Your task to perform on an android device: Open Amazon Image 0: 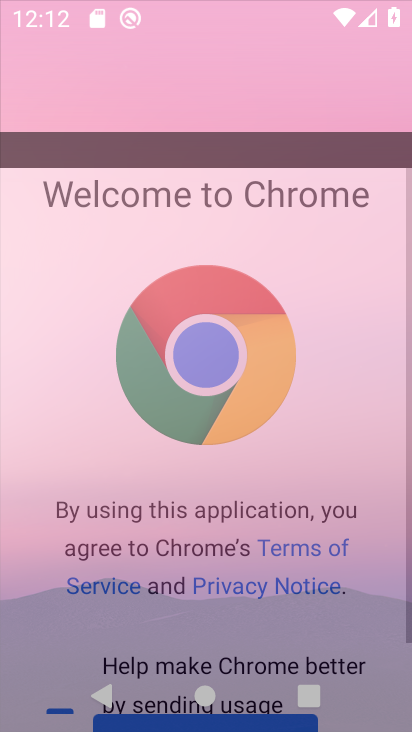
Step 0: drag from (361, 335) to (376, 157)
Your task to perform on an android device: Open Amazon Image 1: 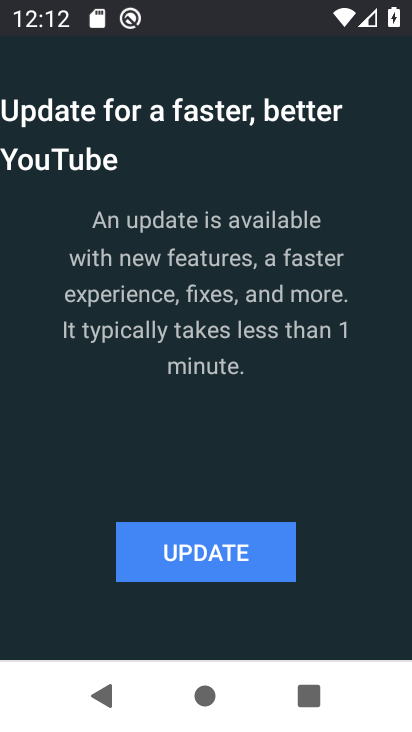
Step 1: press home button
Your task to perform on an android device: Open Amazon Image 2: 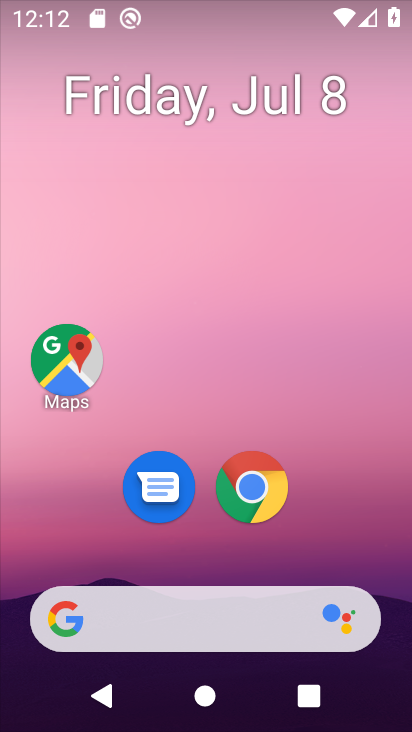
Step 2: drag from (363, 545) to (345, 144)
Your task to perform on an android device: Open Amazon Image 3: 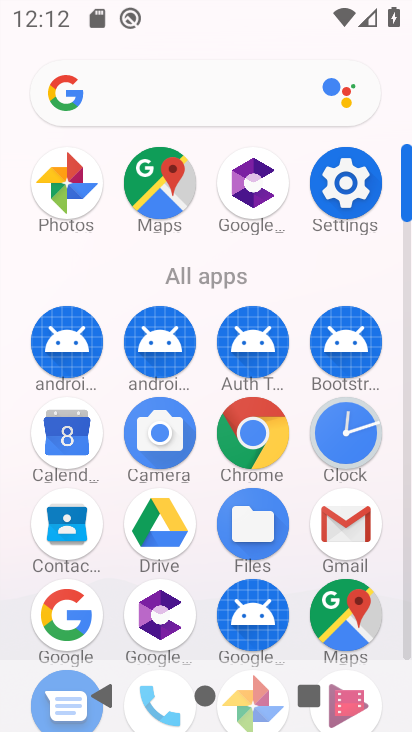
Step 3: click (265, 433)
Your task to perform on an android device: Open Amazon Image 4: 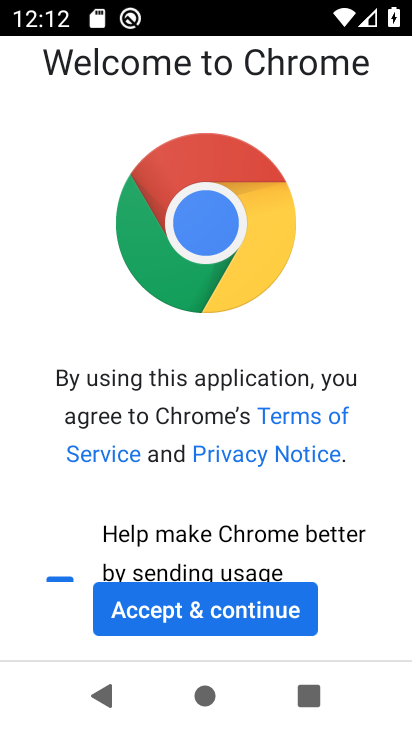
Step 4: click (220, 606)
Your task to perform on an android device: Open Amazon Image 5: 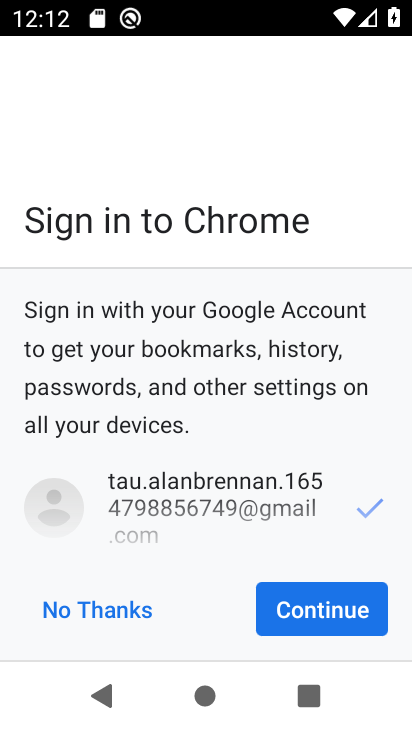
Step 5: click (286, 619)
Your task to perform on an android device: Open Amazon Image 6: 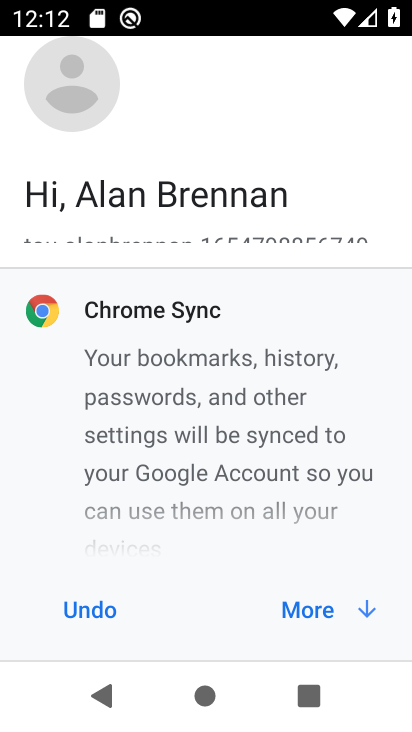
Step 6: click (310, 609)
Your task to perform on an android device: Open Amazon Image 7: 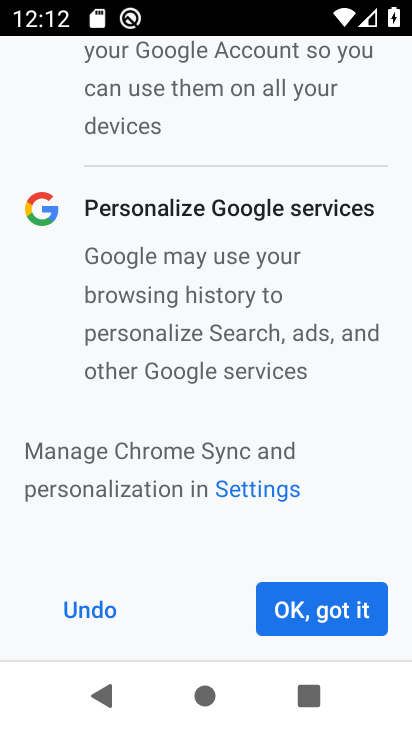
Step 7: click (310, 609)
Your task to perform on an android device: Open Amazon Image 8: 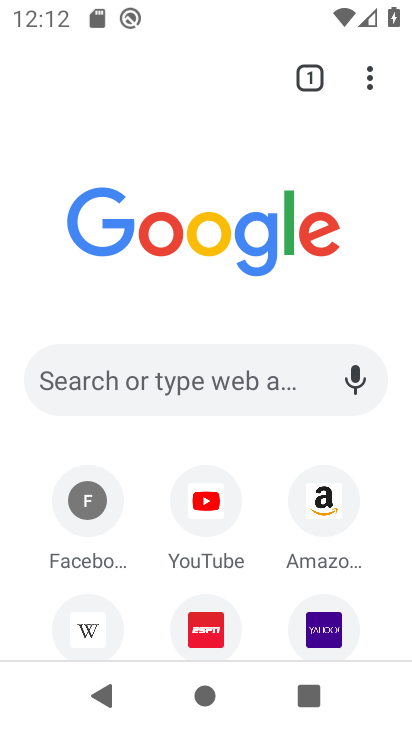
Step 8: click (223, 380)
Your task to perform on an android device: Open Amazon Image 9: 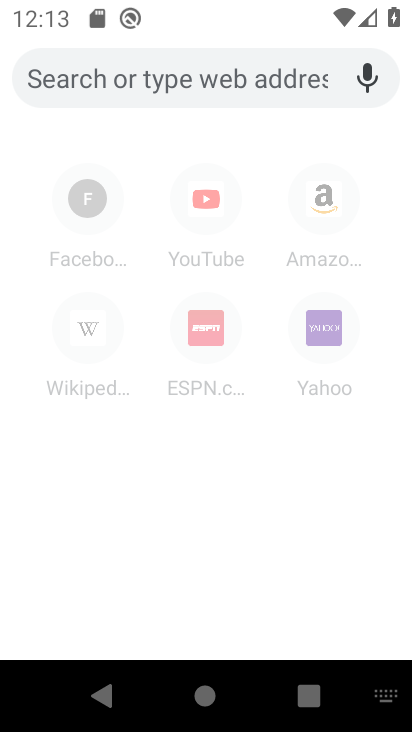
Step 9: type "amazon"
Your task to perform on an android device: Open Amazon Image 10: 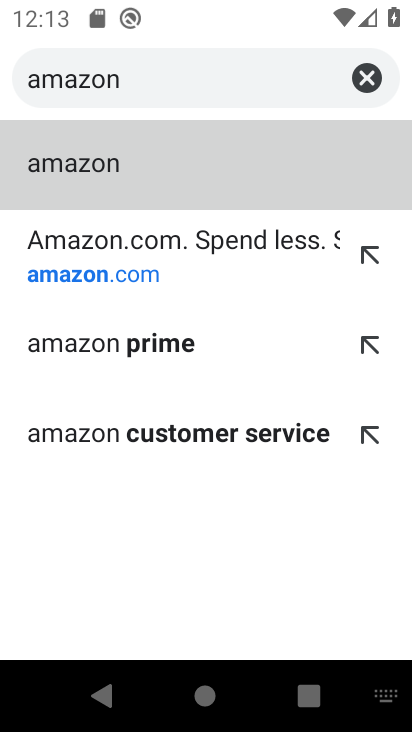
Step 10: click (194, 246)
Your task to perform on an android device: Open Amazon Image 11: 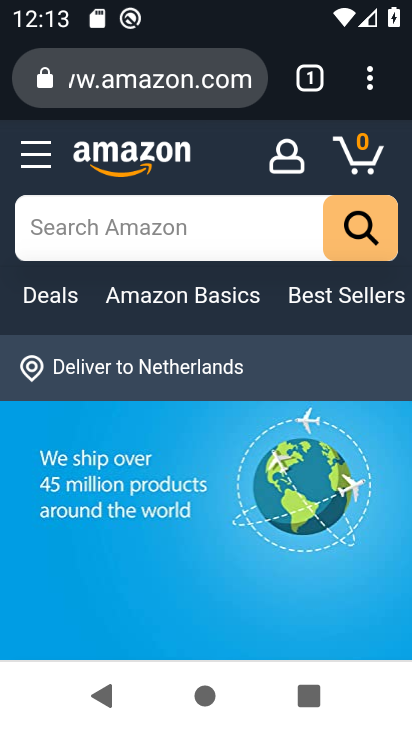
Step 11: task complete